Your task to perform on an android device: snooze an email in the gmail app Image 0: 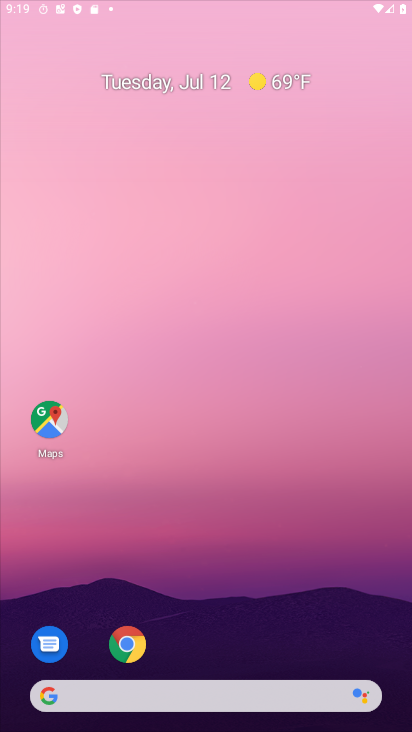
Step 0: press home button
Your task to perform on an android device: snooze an email in the gmail app Image 1: 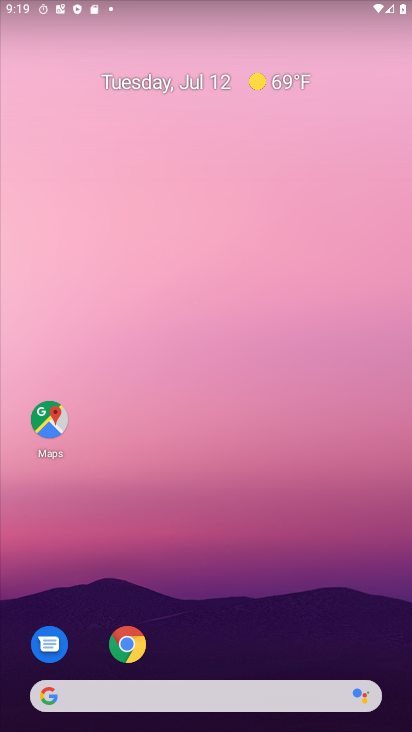
Step 1: drag from (230, 652) to (216, 13)
Your task to perform on an android device: snooze an email in the gmail app Image 2: 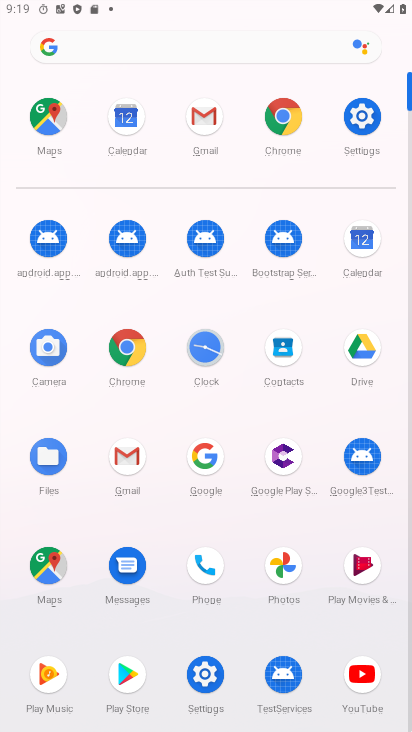
Step 2: click (204, 114)
Your task to perform on an android device: snooze an email in the gmail app Image 3: 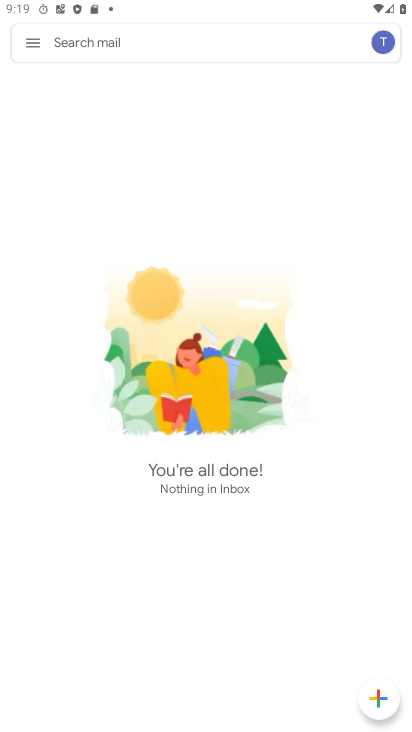
Step 3: click (30, 36)
Your task to perform on an android device: snooze an email in the gmail app Image 4: 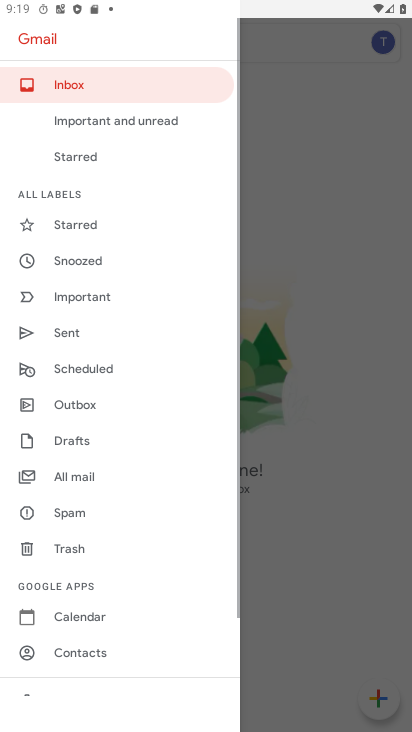
Step 4: click (281, 175)
Your task to perform on an android device: snooze an email in the gmail app Image 5: 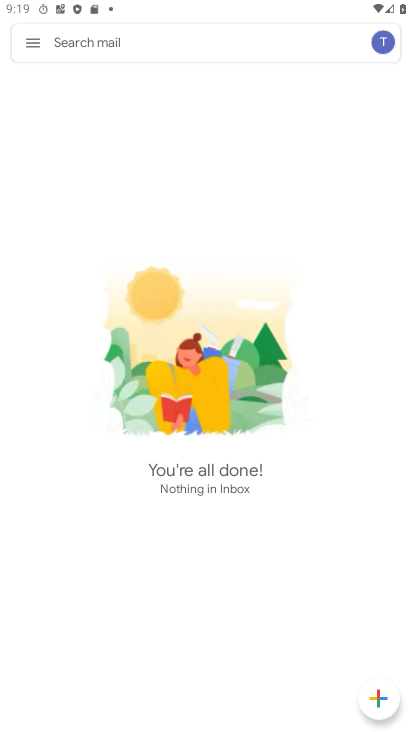
Step 5: task complete